Your task to perform on an android device: Open the Play Movies app and select the watchlist tab. Image 0: 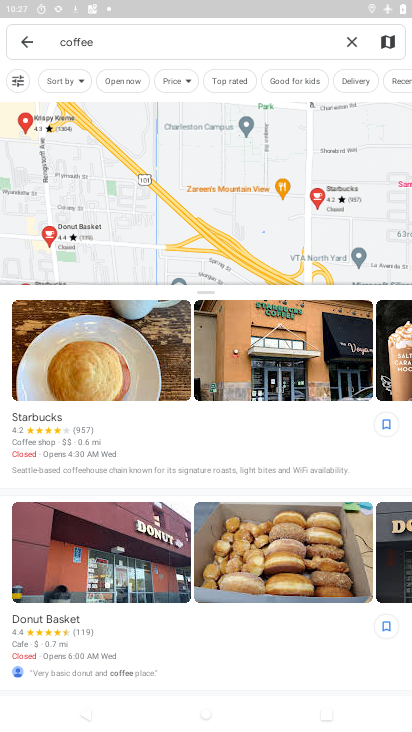
Step 0: press home button
Your task to perform on an android device: Open the Play Movies app and select the watchlist tab. Image 1: 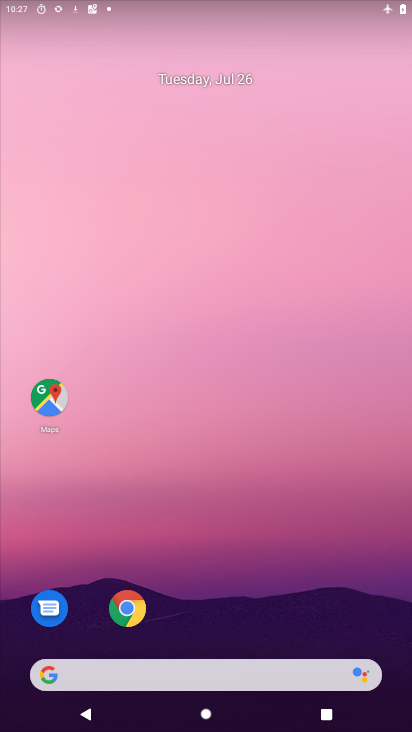
Step 1: drag from (201, 635) to (184, 123)
Your task to perform on an android device: Open the Play Movies app and select the watchlist tab. Image 2: 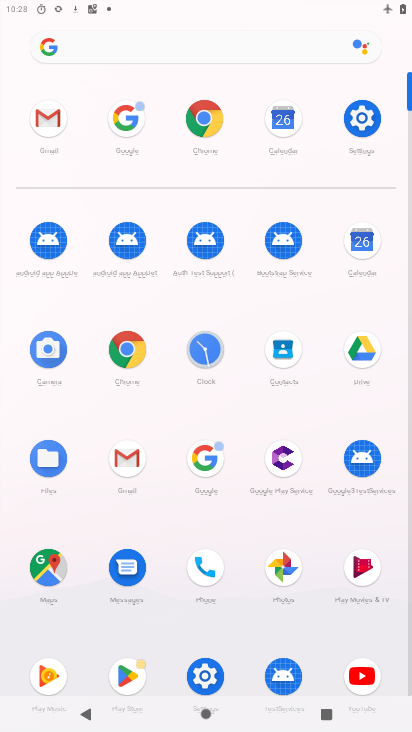
Step 2: click (363, 596)
Your task to perform on an android device: Open the Play Movies app and select the watchlist tab. Image 3: 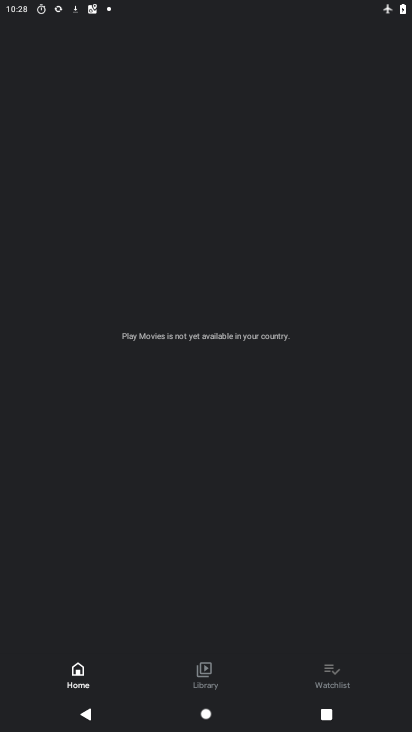
Step 3: click (331, 672)
Your task to perform on an android device: Open the Play Movies app and select the watchlist tab. Image 4: 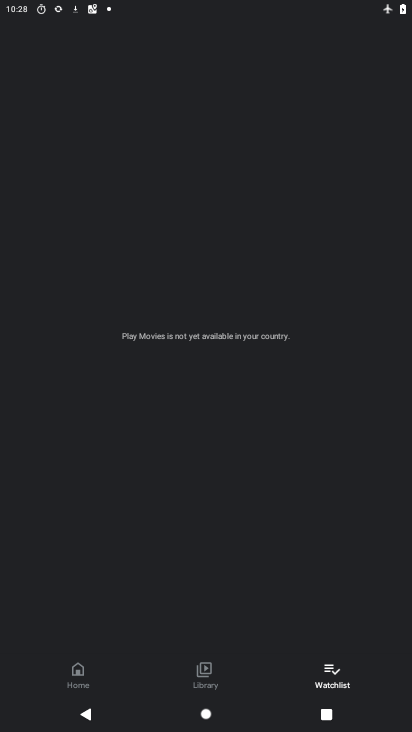
Step 4: task complete